Your task to perform on an android device: Open location settings Image 0: 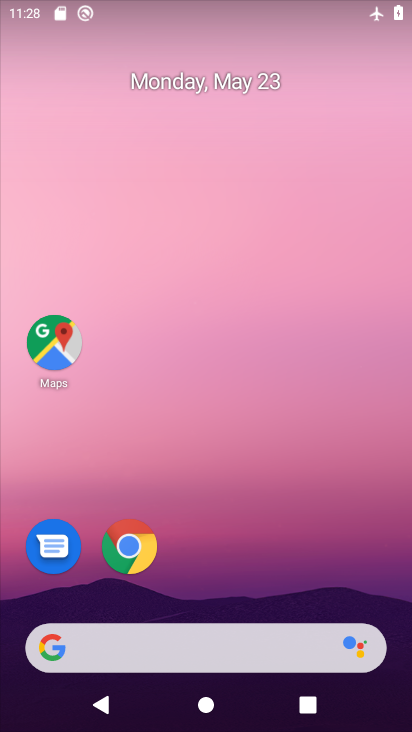
Step 0: drag from (240, 578) to (244, 23)
Your task to perform on an android device: Open location settings Image 1: 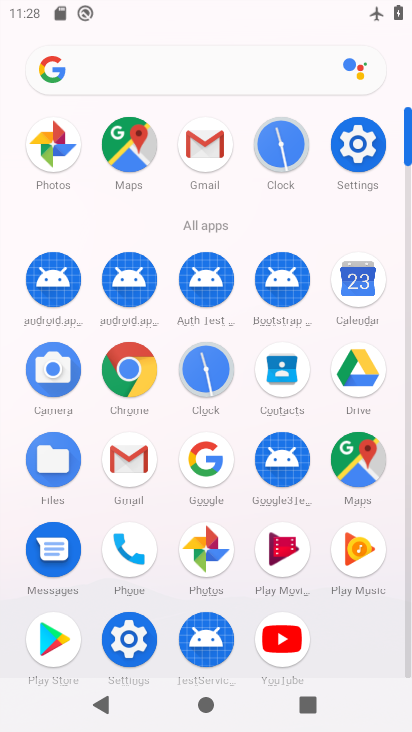
Step 1: click (133, 648)
Your task to perform on an android device: Open location settings Image 2: 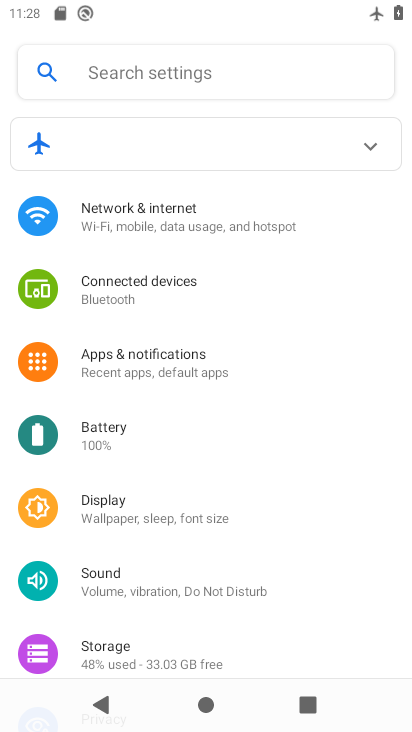
Step 2: drag from (200, 642) to (107, 215)
Your task to perform on an android device: Open location settings Image 3: 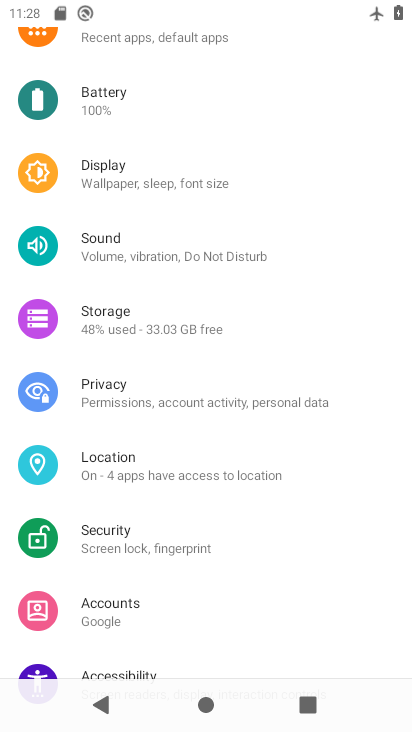
Step 3: click (153, 468)
Your task to perform on an android device: Open location settings Image 4: 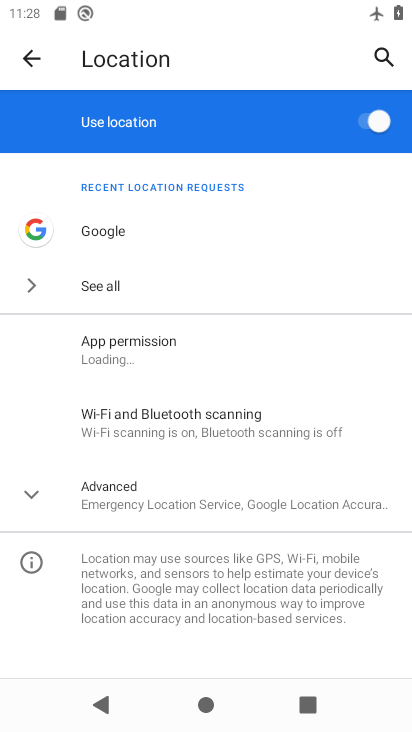
Step 4: task complete